Your task to perform on an android device: turn on improve location accuracy Image 0: 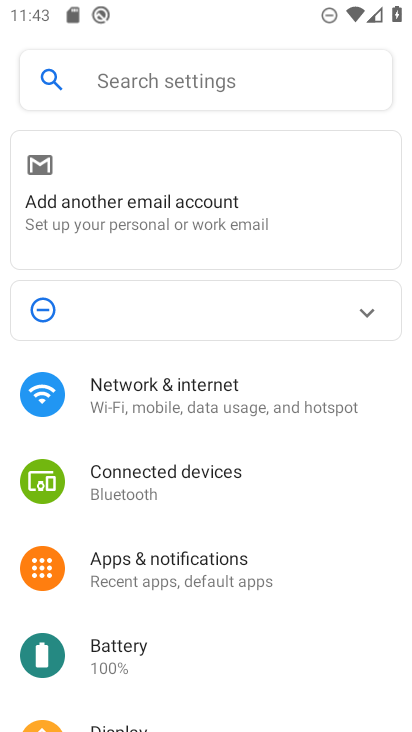
Step 0: drag from (264, 498) to (259, 178)
Your task to perform on an android device: turn on improve location accuracy Image 1: 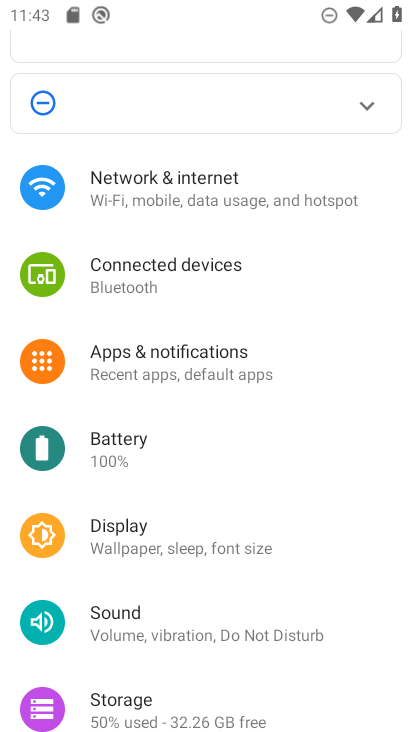
Step 1: drag from (209, 558) to (160, 279)
Your task to perform on an android device: turn on improve location accuracy Image 2: 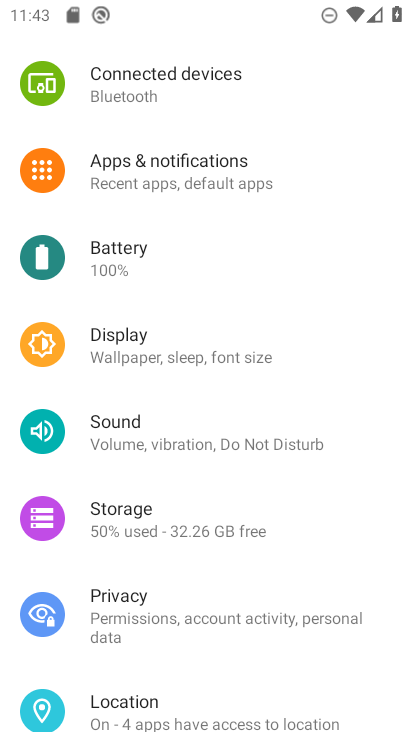
Step 2: drag from (138, 521) to (146, 265)
Your task to perform on an android device: turn on improve location accuracy Image 3: 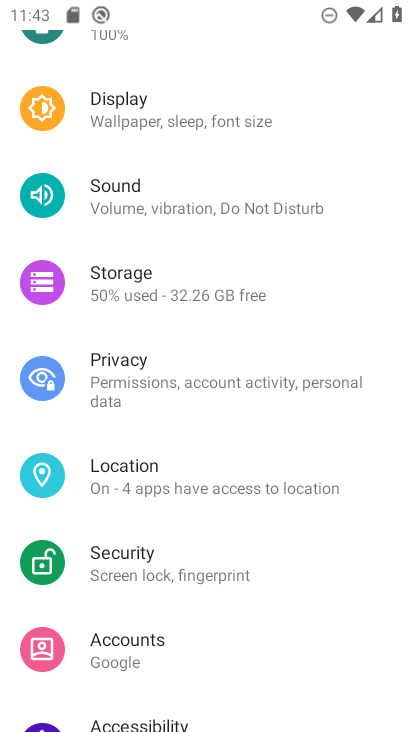
Step 3: drag from (126, 637) to (143, 374)
Your task to perform on an android device: turn on improve location accuracy Image 4: 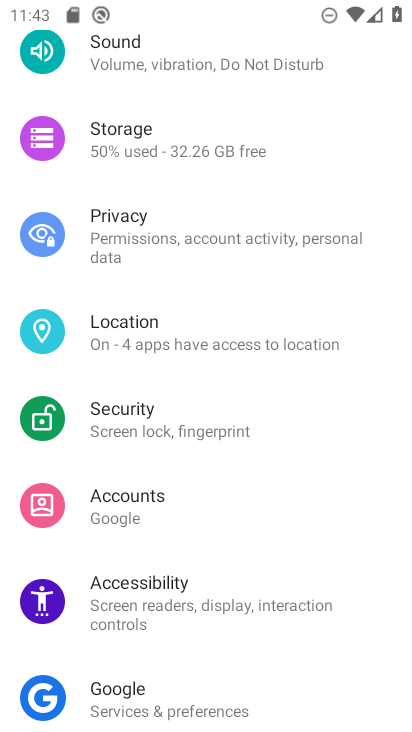
Step 4: drag from (181, 599) to (201, 394)
Your task to perform on an android device: turn on improve location accuracy Image 5: 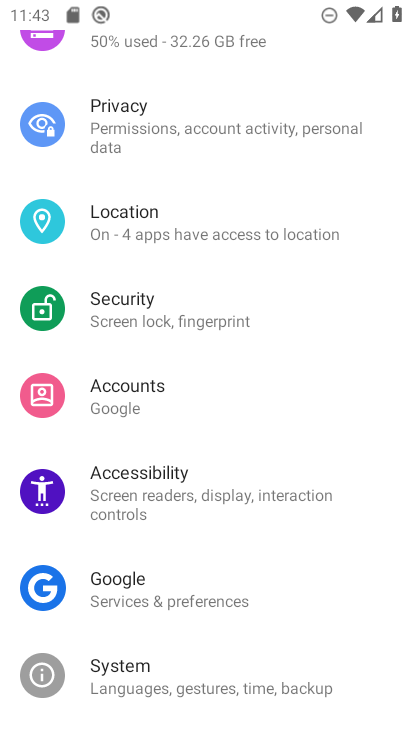
Step 5: drag from (173, 664) to (223, 497)
Your task to perform on an android device: turn on improve location accuracy Image 6: 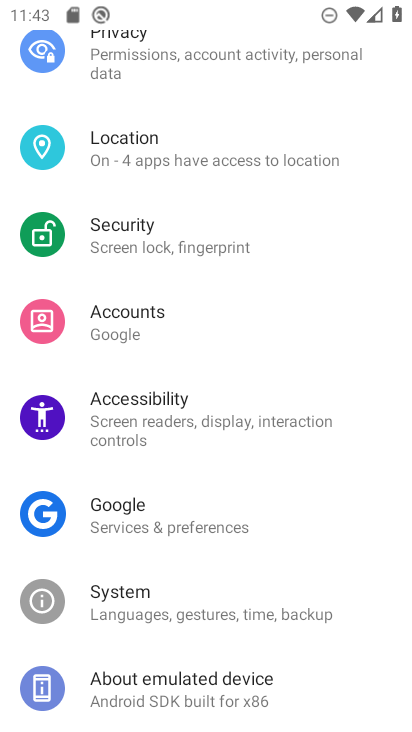
Step 6: click (208, 161)
Your task to perform on an android device: turn on improve location accuracy Image 7: 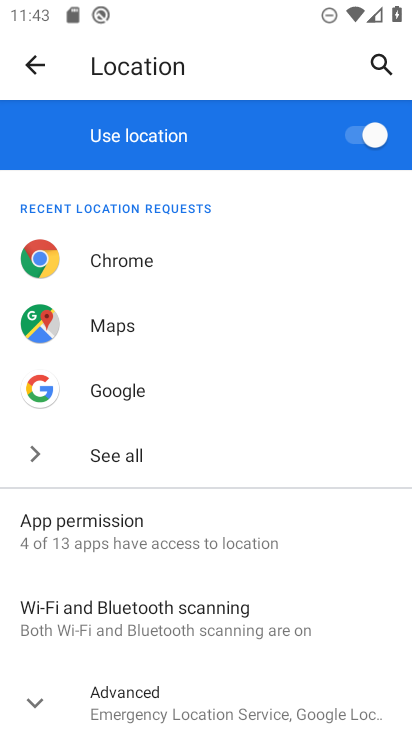
Step 7: drag from (201, 514) to (257, 255)
Your task to perform on an android device: turn on improve location accuracy Image 8: 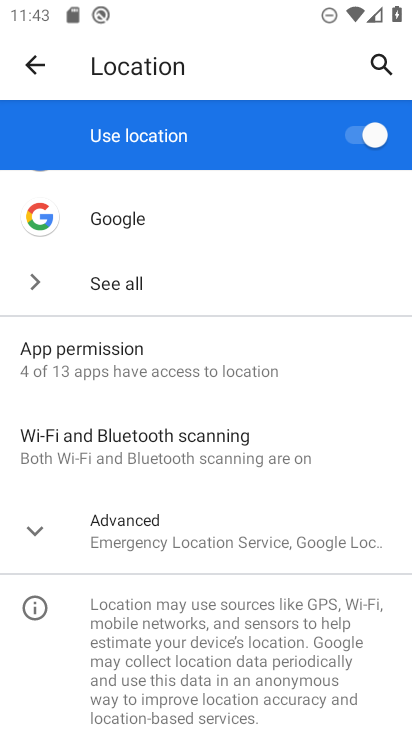
Step 8: click (120, 539)
Your task to perform on an android device: turn on improve location accuracy Image 9: 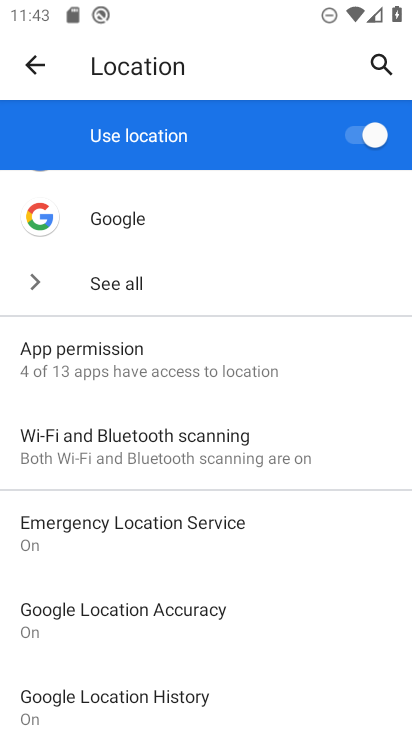
Step 9: click (188, 616)
Your task to perform on an android device: turn on improve location accuracy Image 10: 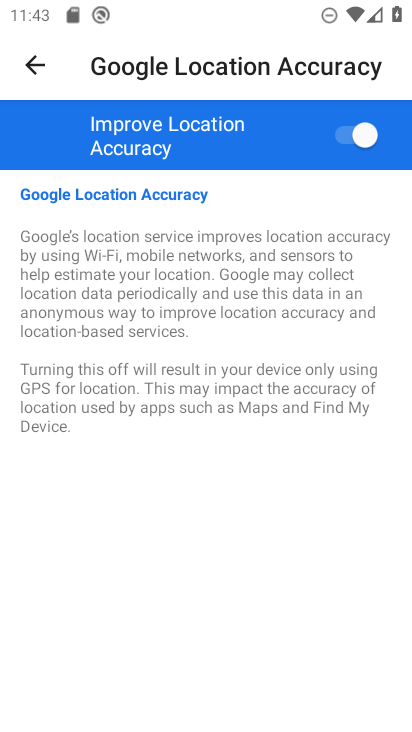
Step 10: task complete